Your task to perform on an android device: Check the news Image 0: 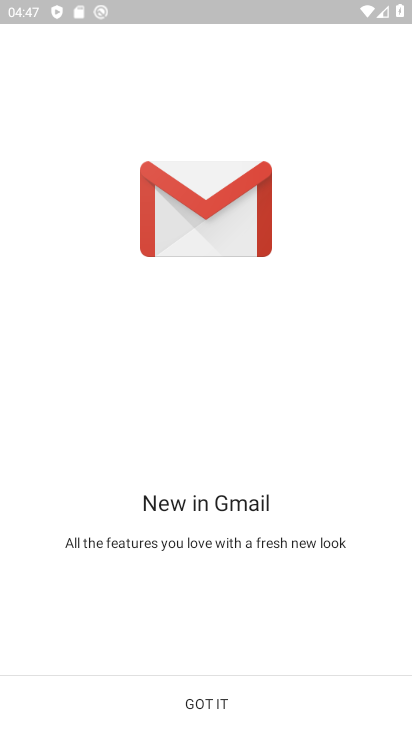
Step 0: press home button
Your task to perform on an android device: Check the news Image 1: 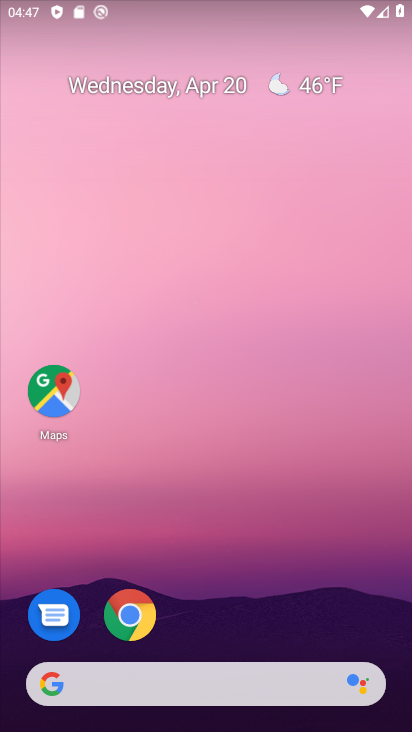
Step 1: drag from (207, 593) to (241, 44)
Your task to perform on an android device: Check the news Image 2: 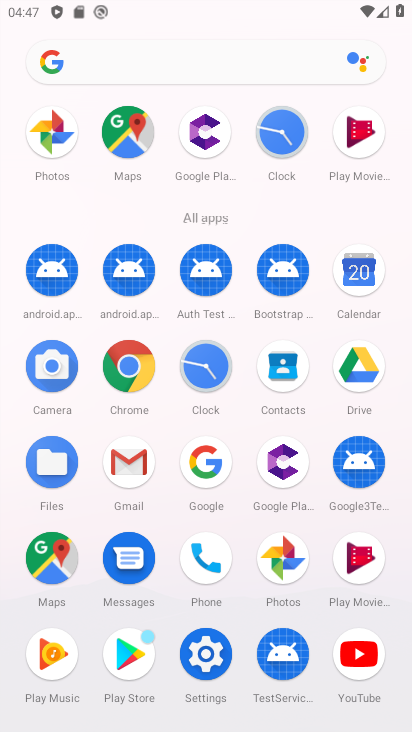
Step 2: click (154, 64)
Your task to perform on an android device: Check the news Image 3: 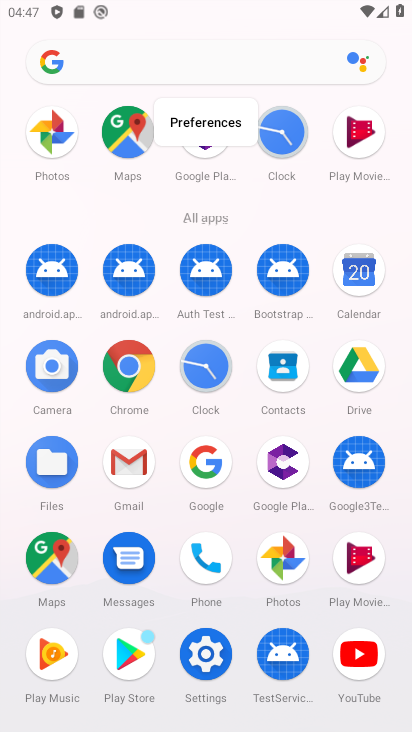
Step 3: click (154, 64)
Your task to perform on an android device: Check the news Image 4: 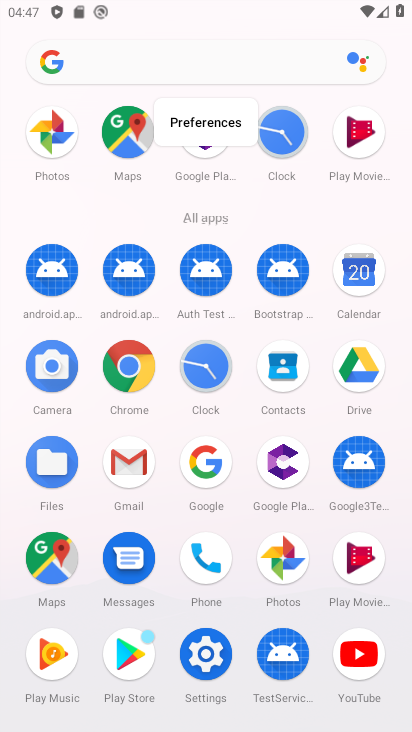
Step 4: click (156, 66)
Your task to perform on an android device: Check the news Image 5: 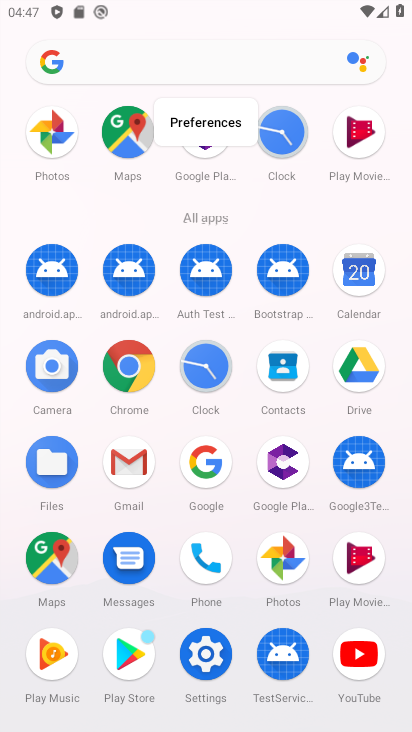
Step 5: click (89, 75)
Your task to perform on an android device: Check the news Image 6: 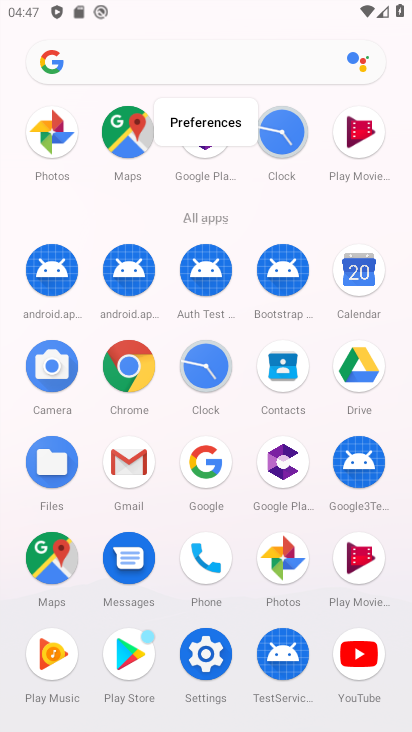
Step 6: click (89, 73)
Your task to perform on an android device: Check the news Image 7: 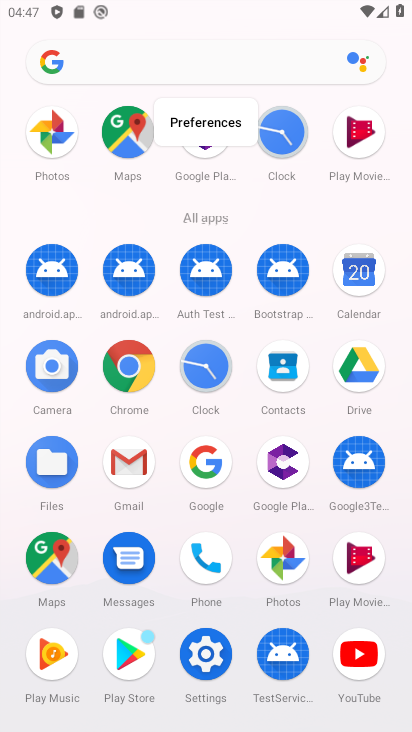
Step 7: click (76, 51)
Your task to perform on an android device: Check the news Image 8: 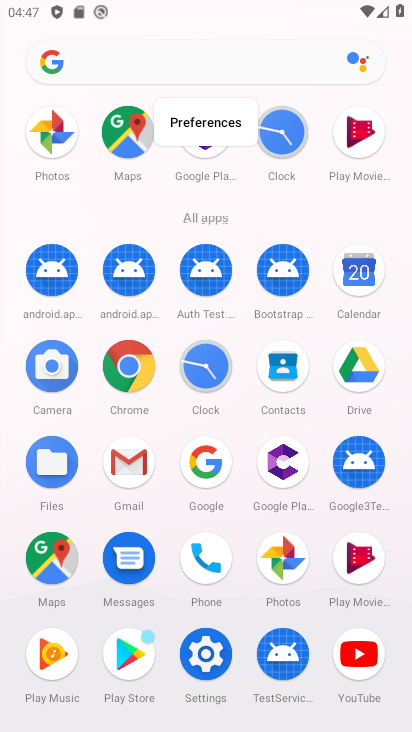
Step 8: click (104, 58)
Your task to perform on an android device: Check the news Image 9: 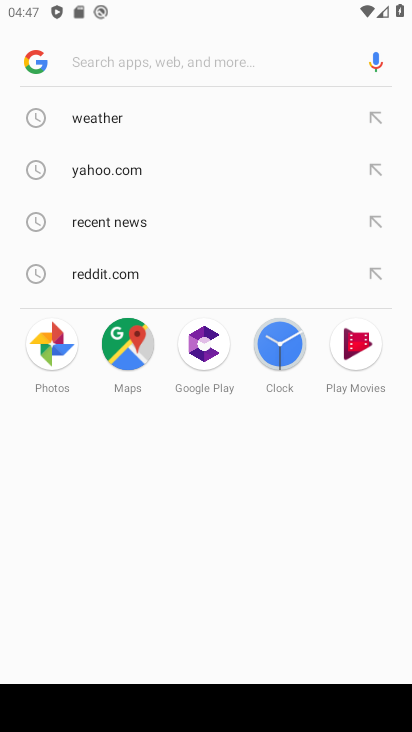
Step 9: type "news"
Your task to perform on an android device: Check the news Image 10: 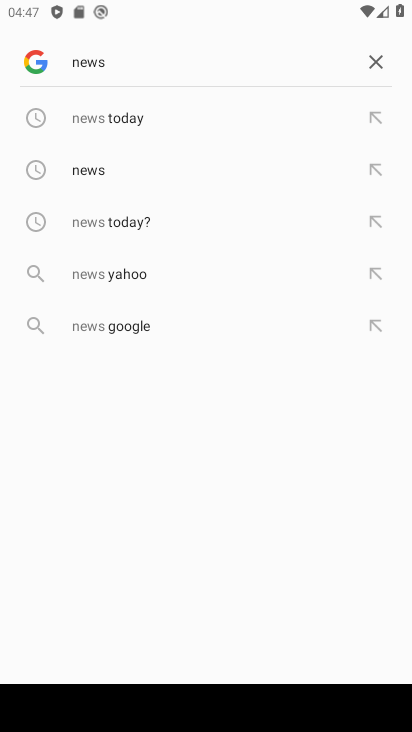
Step 10: click (107, 170)
Your task to perform on an android device: Check the news Image 11: 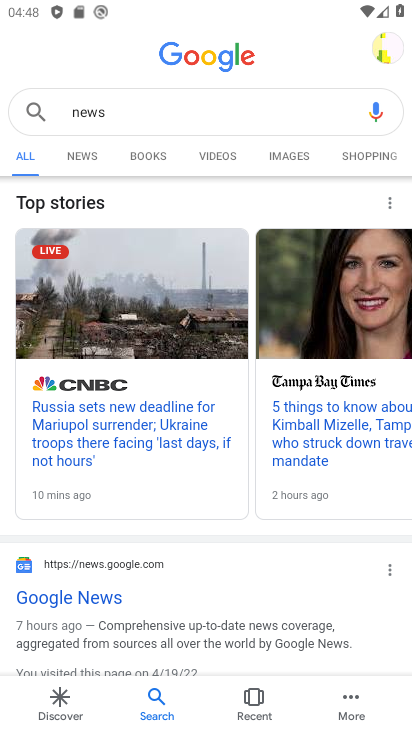
Step 11: click (86, 147)
Your task to perform on an android device: Check the news Image 12: 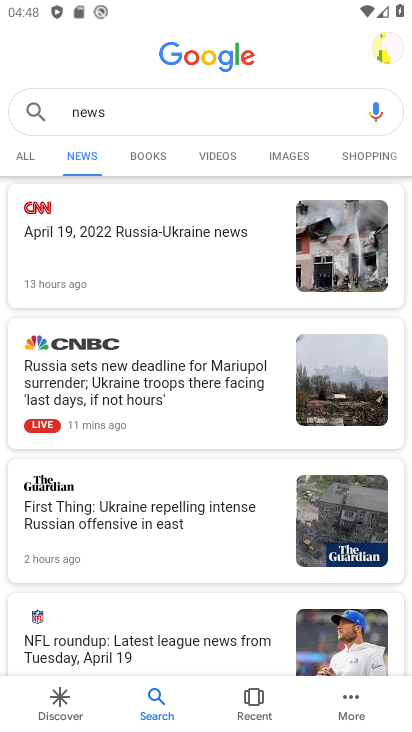
Step 12: task complete